Your task to perform on an android device: Go to settings Image 0: 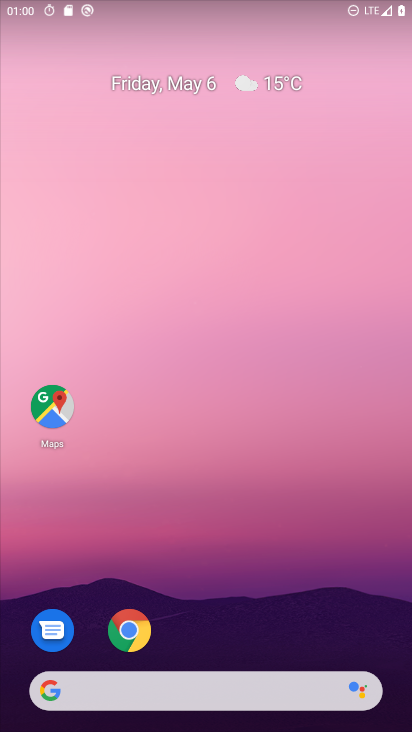
Step 0: drag from (273, 600) to (267, 48)
Your task to perform on an android device: Go to settings Image 1: 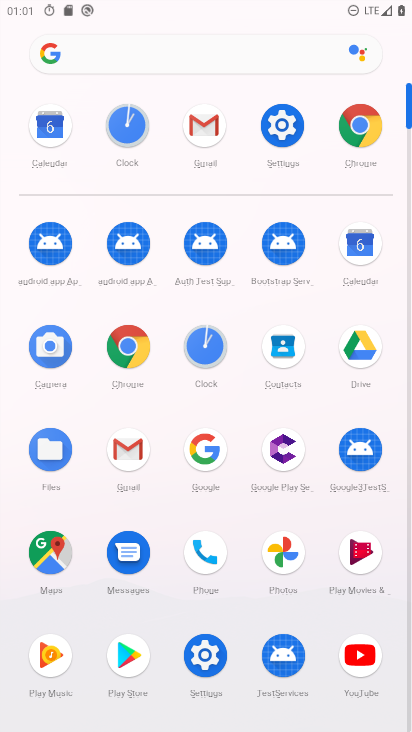
Step 1: click (283, 124)
Your task to perform on an android device: Go to settings Image 2: 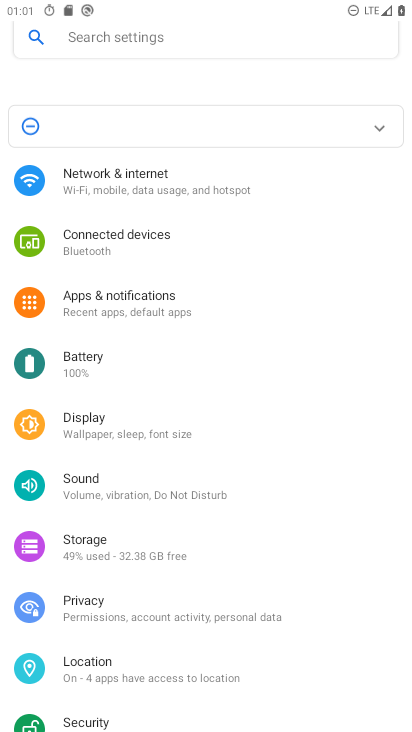
Step 2: task complete